Your task to perform on an android device: star an email in the gmail app Image 0: 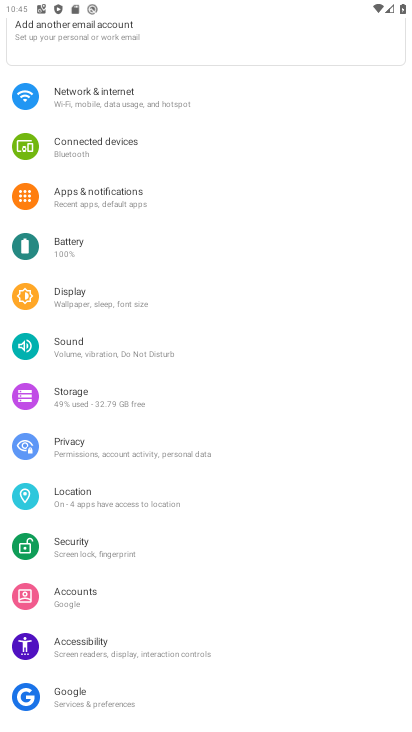
Step 0: press home button
Your task to perform on an android device: star an email in the gmail app Image 1: 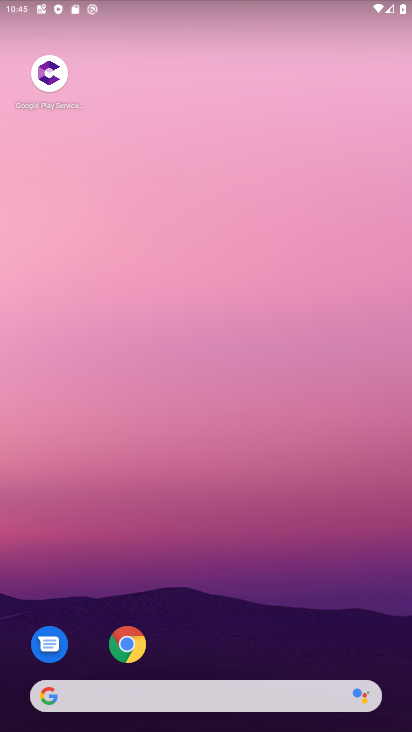
Step 1: drag from (216, 689) to (206, 105)
Your task to perform on an android device: star an email in the gmail app Image 2: 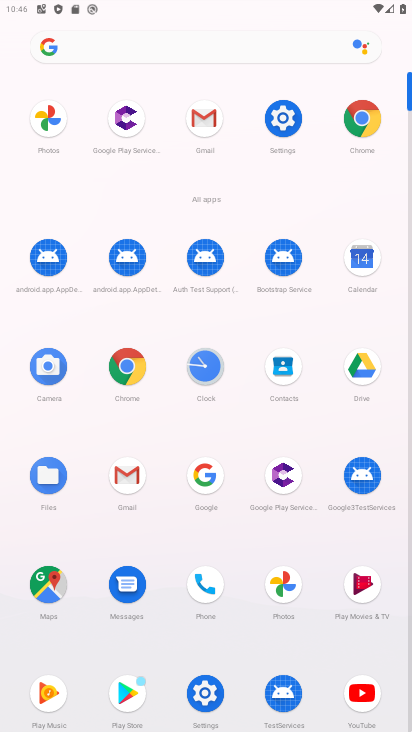
Step 2: click (121, 483)
Your task to perform on an android device: star an email in the gmail app Image 3: 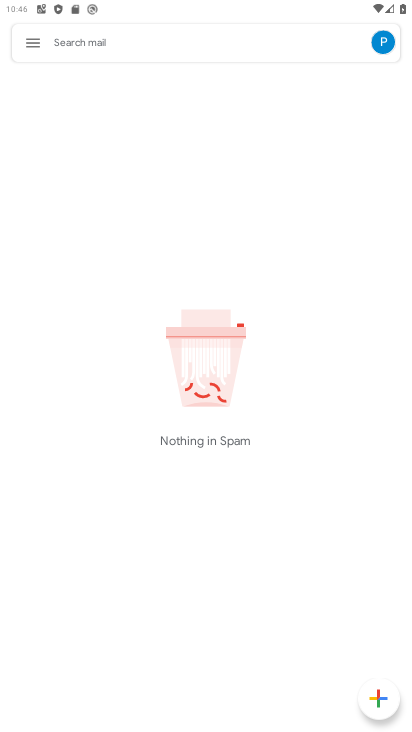
Step 3: click (28, 37)
Your task to perform on an android device: star an email in the gmail app Image 4: 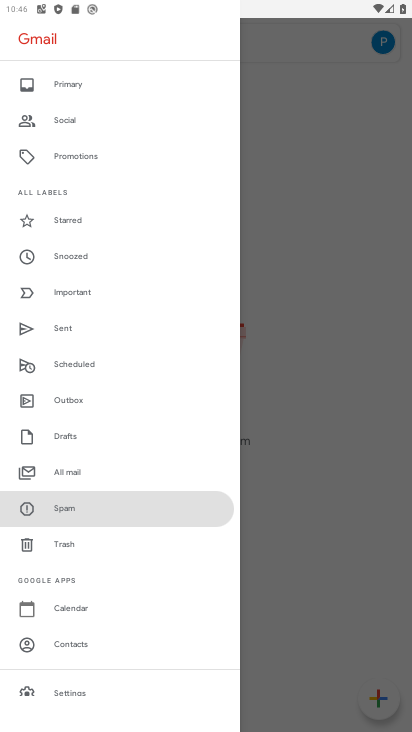
Step 4: click (97, 480)
Your task to perform on an android device: star an email in the gmail app Image 5: 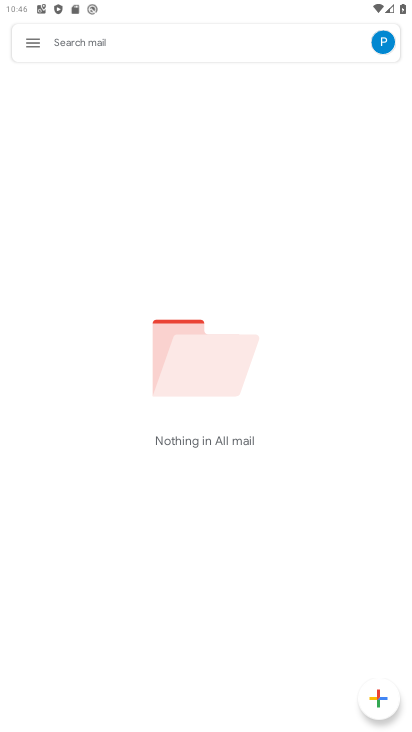
Step 5: task complete